Your task to perform on an android device: delete browsing data in the chrome app Image 0: 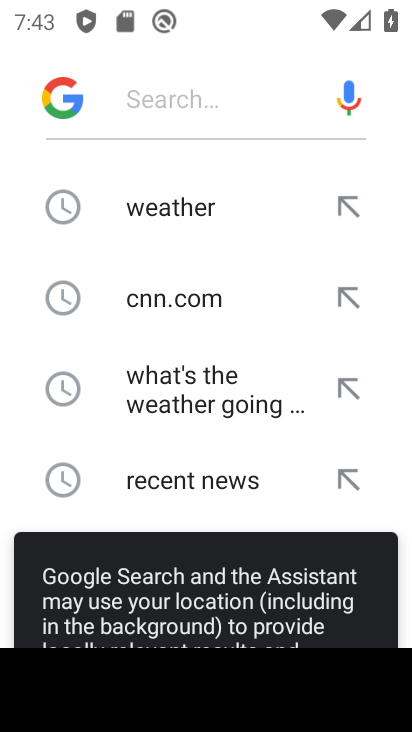
Step 0: press home button
Your task to perform on an android device: delete browsing data in the chrome app Image 1: 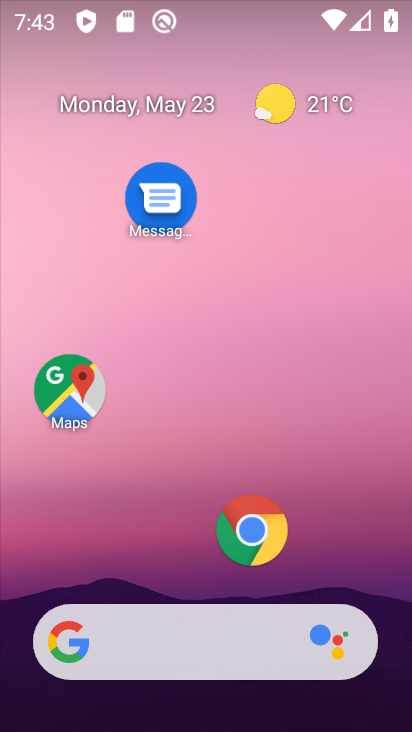
Step 1: click (254, 528)
Your task to perform on an android device: delete browsing data in the chrome app Image 2: 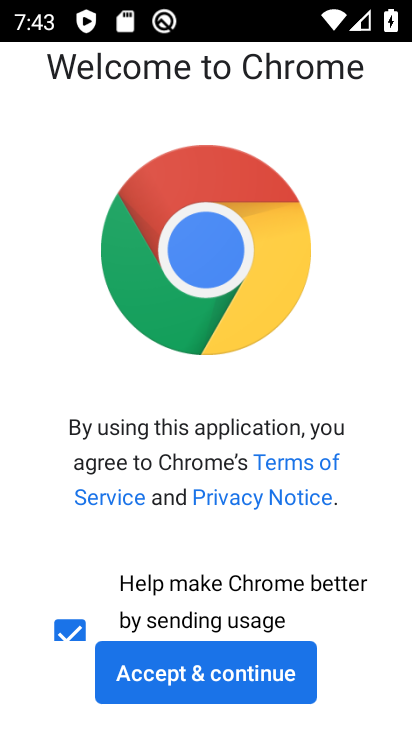
Step 2: click (262, 675)
Your task to perform on an android device: delete browsing data in the chrome app Image 3: 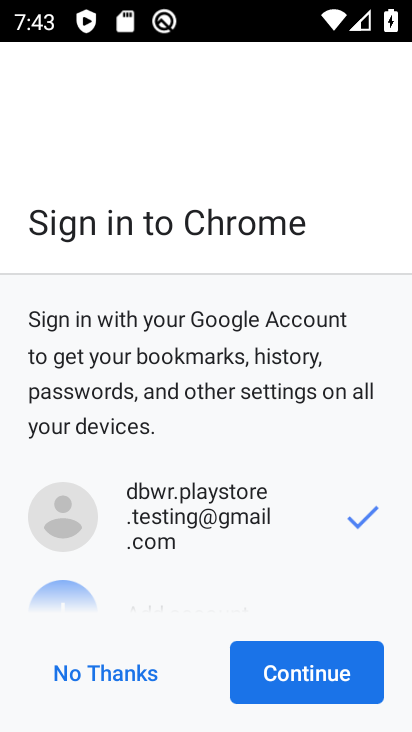
Step 3: click (262, 675)
Your task to perform on an android device: delete browsing data in the chrome app Image 4: 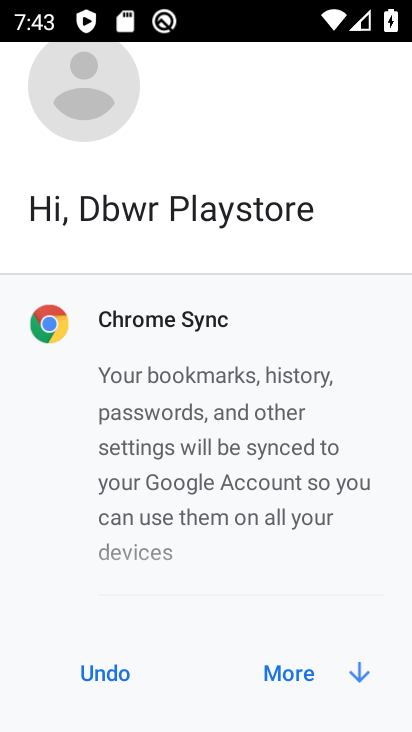
Step 4: click (262, 675)
Your task to perform on an android device: delete browsing data in the chrome app Image 5: 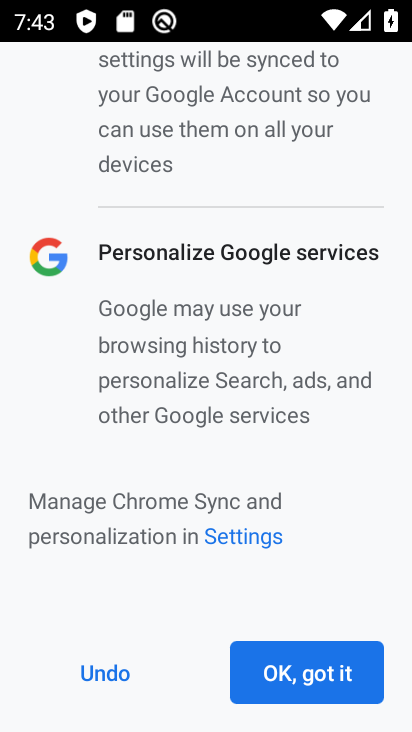
Step 5: click (262, 675)
Your task to perform on an android device: delete browsing data in the chrome app Image 6: 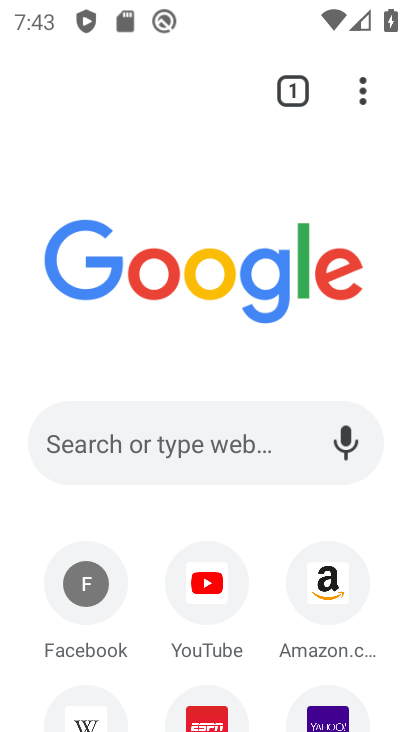
Step 6: click (386, 87)
Your task to perform on an android device: delete browsing data in the chrome app Image 7: 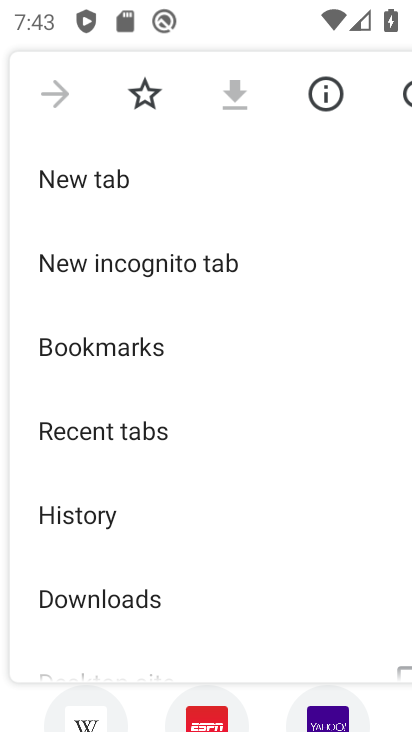
Step 7: click (100, 518)
Your task to perform on an android device: delete browsing data in the chrome app Image 8: 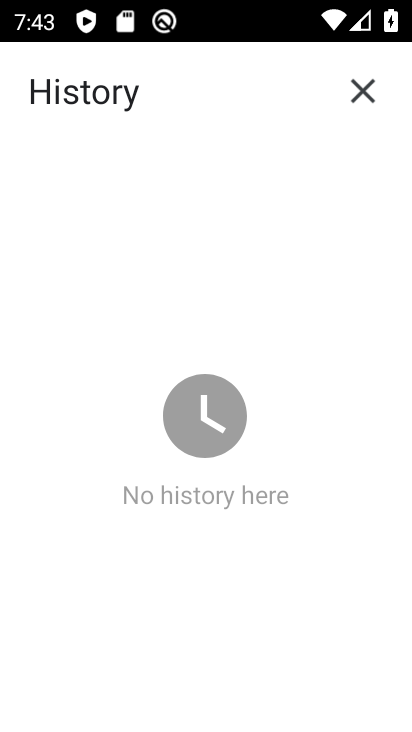
Step 8: task complete